Your task to perform on an android device: Go to location settings Image 0: 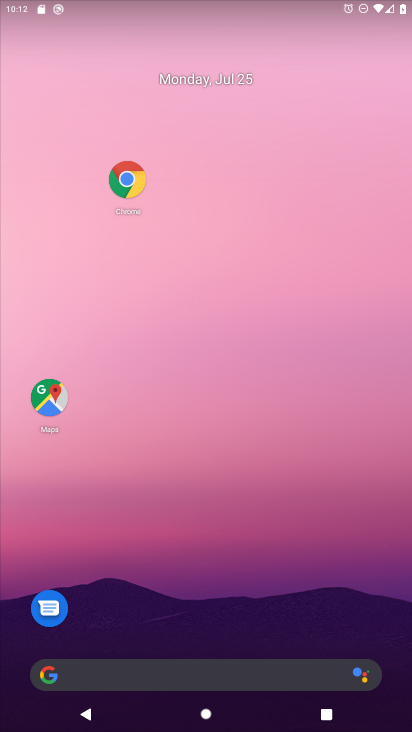
Step 0: drag from (148, 712) to (238, 35)
Your task to perform on an android device: Go to location settings Image 1: 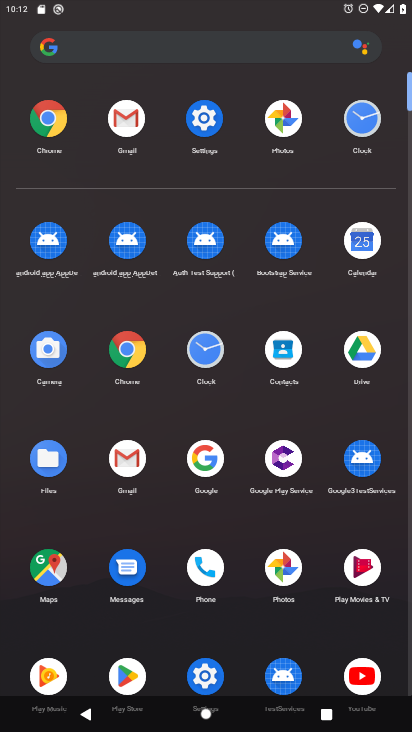
Step 1: click (213, 112)
Your task to perform on an android device: Go to location settings Image 2: 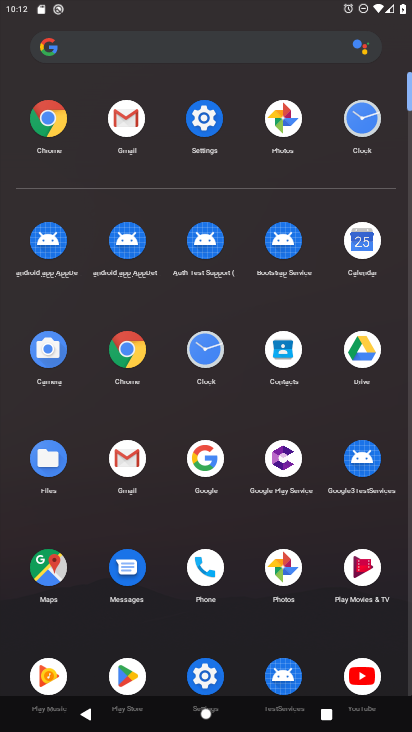
Step 2: click (213, 112)
Your task to perform on an android device: Go to location settings Image 3: 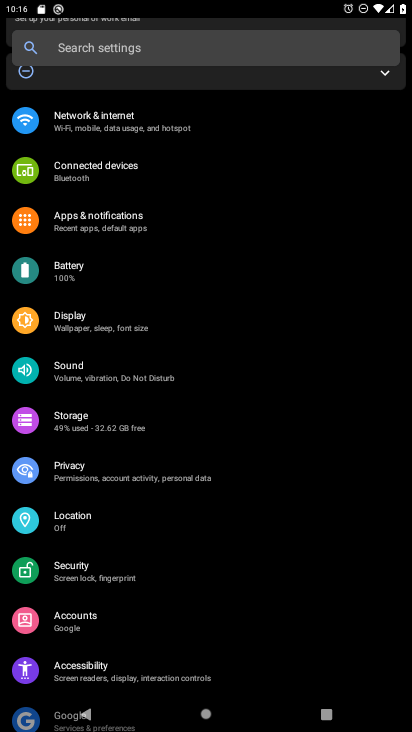
Step 3: click (102, 528)
Your task to perform on an android device: Go to location settings Image 4: 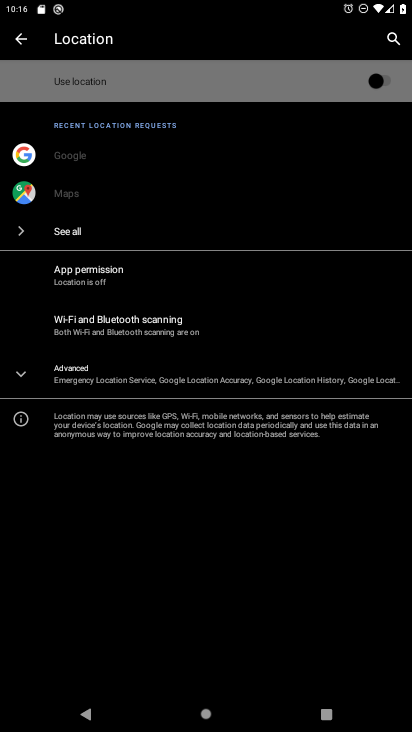
Step 4: task complete